Your task to perform on an android device: Open calendar and show me the second week of next month Image 0: 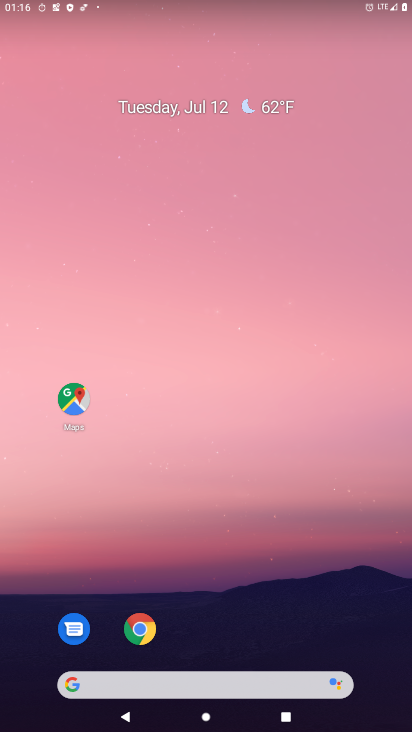
Step 0: drag from (238, 598) to (244, 6)
Your task to perform on an android device: Open calendar and show me the second week of next month Image 1: 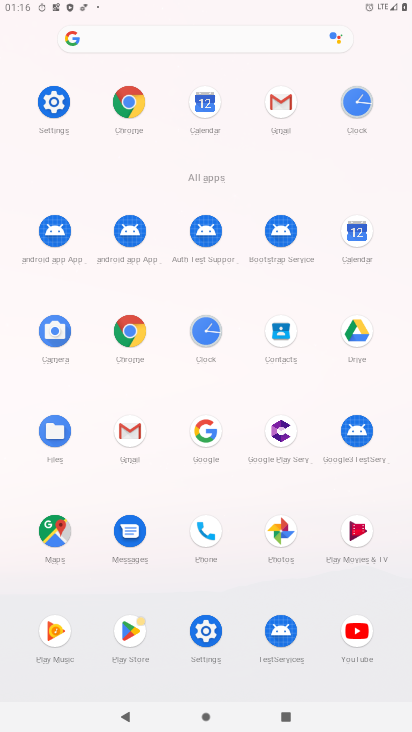
Step 1: click (192, 105)
Your task to perform on an android device: Open calendar and show me the second week of next month Image 2: 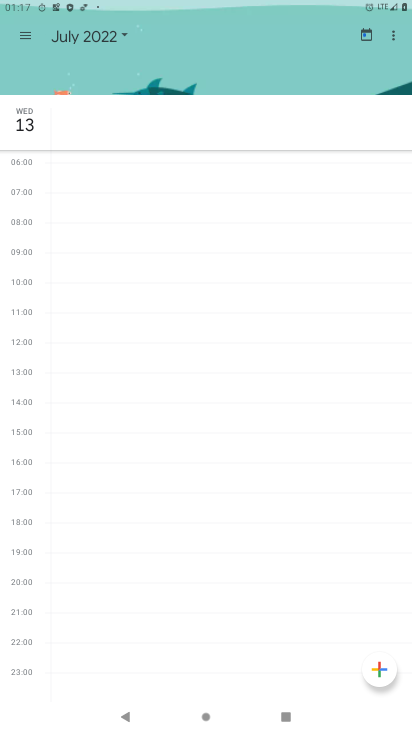
Step 2: click (96, 33)
Your task to perform on an android device: Open calendar and show me the second week of next month Image 3: 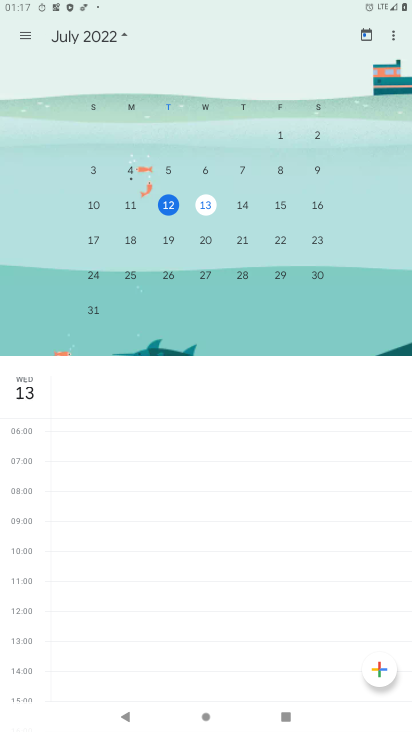
Step 3: drag from (336, 212) to (58, 193)
Your task to perform on an android device: Open calendar and show me the second week of next month Image 4: 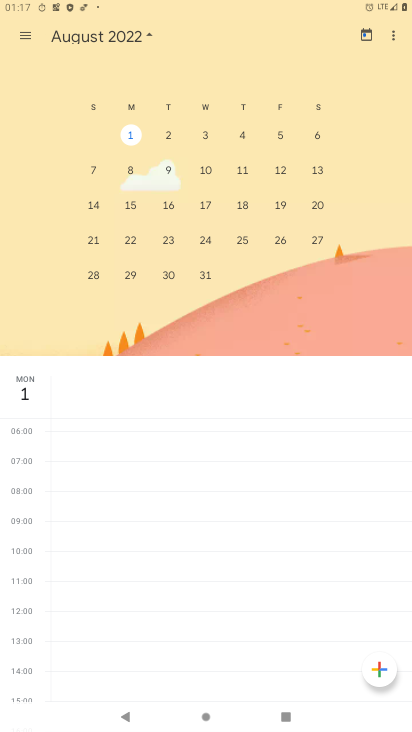
Step 4: click (307, 168)
Your task to perform on an android device: Open calendar and show me the second week of next month Image 5: 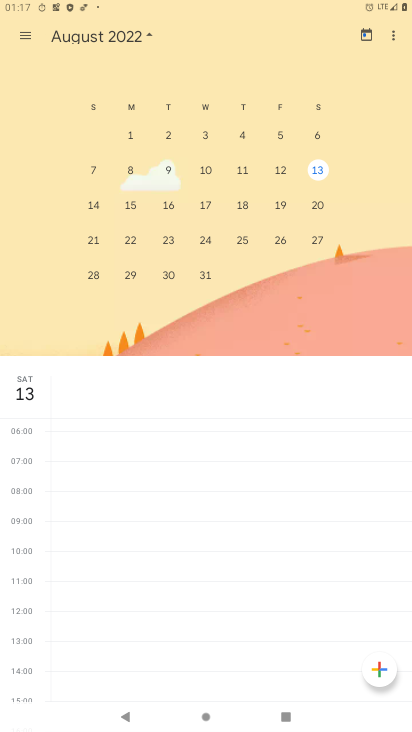
Step 5: task complete